Your task to perform on an android device: Show me the alarms in the clock app Image 0: 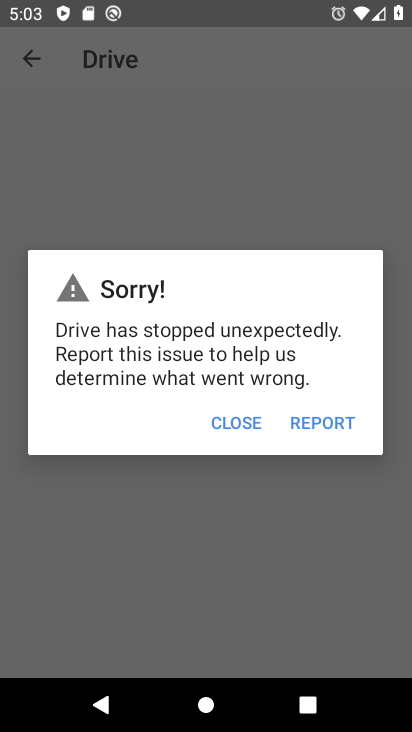
Step 0: press back button
Your task to perform on an android device: Show me the alarms in the clock app Image 1: 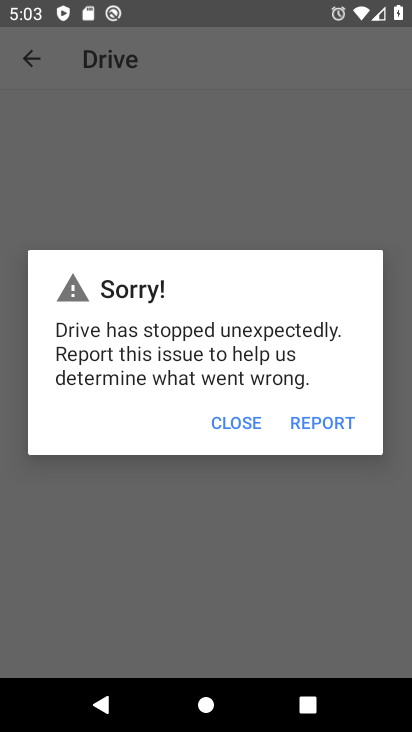
Step 1: press home button
Your task to perform on an android device: Show me the alarms in the clock app Image 2: 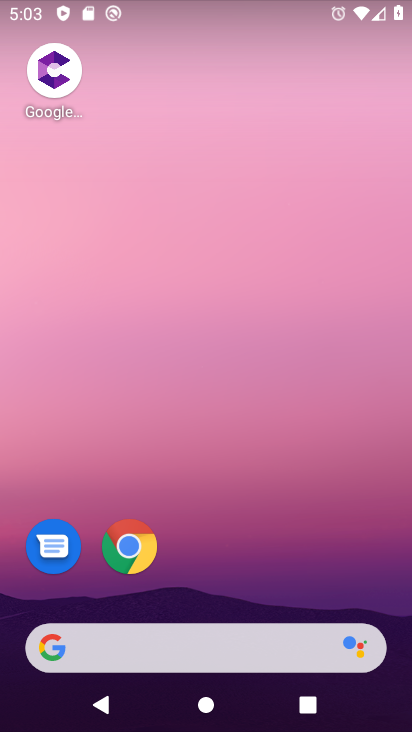
Step 2: drag from (157, 611) to (242, 228)
Your task to perform on an android device: Show me the alarms in the clock app Image 3: 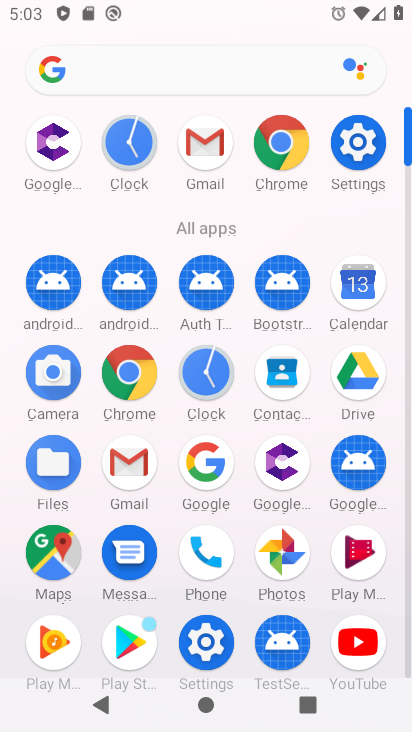
Step 3: click (200, 376)
Your task to perform on an android device: Show me the alarms in the clock app Image 4: 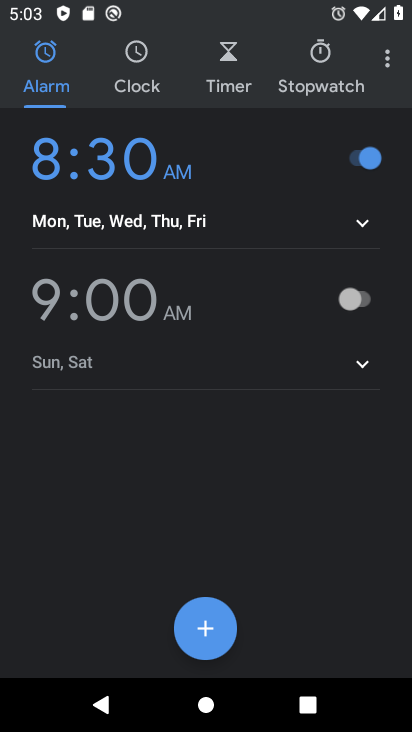
Step 4: task complete